Your task to perform on an android device: open app "Indeed Job Search" (install if not already installed) and enter user name: "quixotic@inbox.com" and password: "microphones" Image 0: 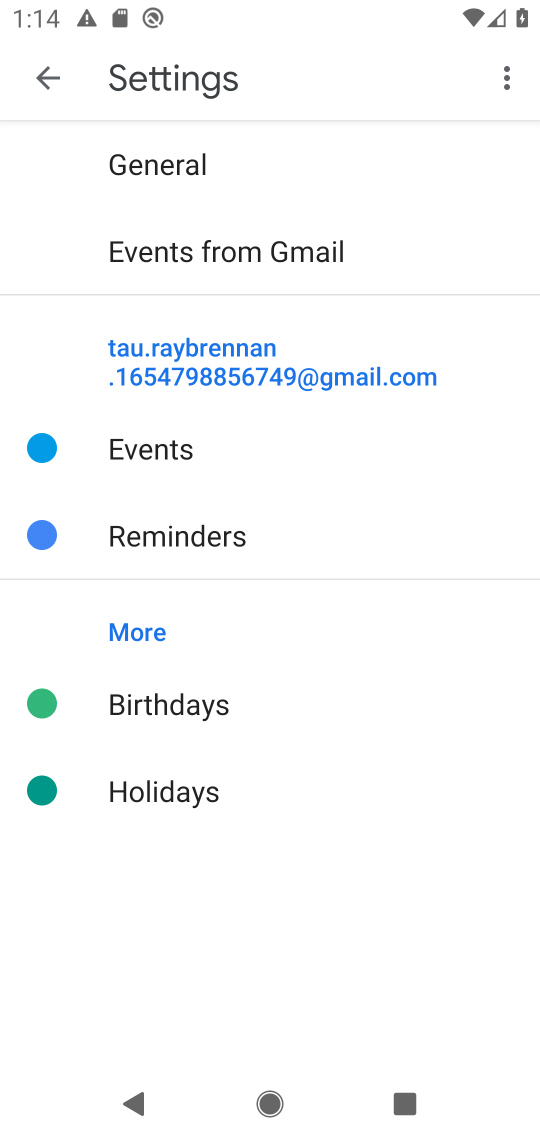
Step 0: press back button
Your task to perform on an android device: open app "Indeed Job Search" (install if not already installed) and enter user name: "quixotic@inbox.com" and password: "microphones" Image 1: 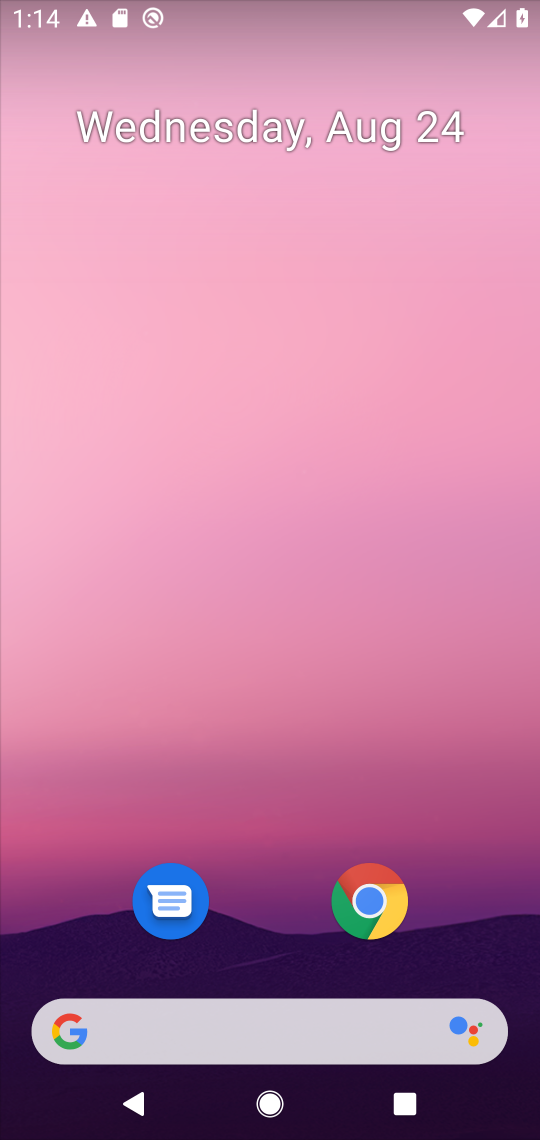
Step 1: drag from (268, 745) to (334, 259)
Your task to perform on an android device: open app "Indeed Job Search" (install if not already installed) and enter user name: "quixotic@inbox.com" and password: "microphones" Image 2: 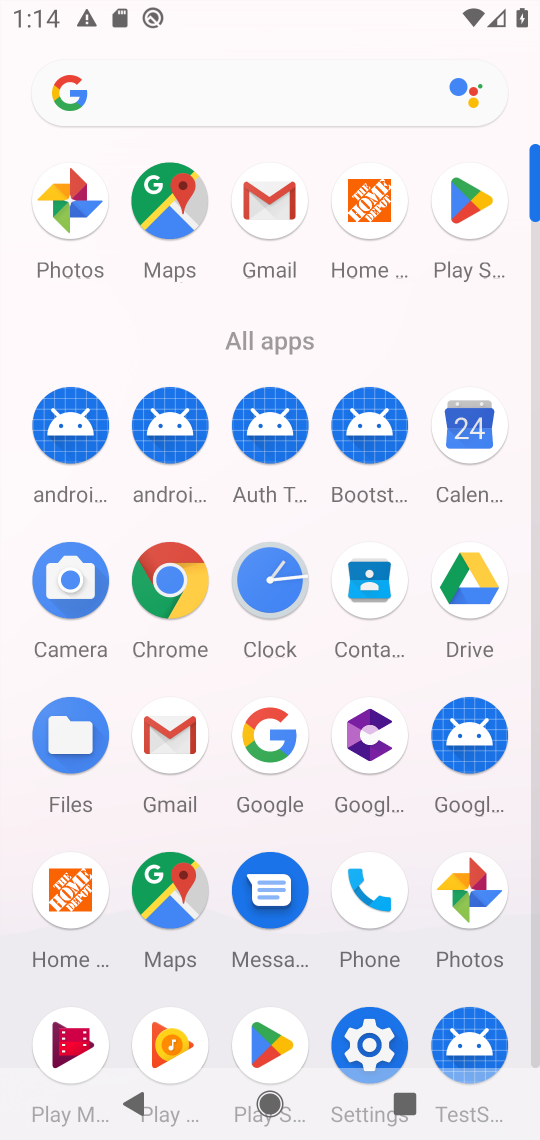
Step 2: click (467, 206)
Your task to perform on an android device: open app "Indeed Job Search" (install if not already installed) and enter user name: "quixotic@inbox.com" and password: "microphones" Image 3: 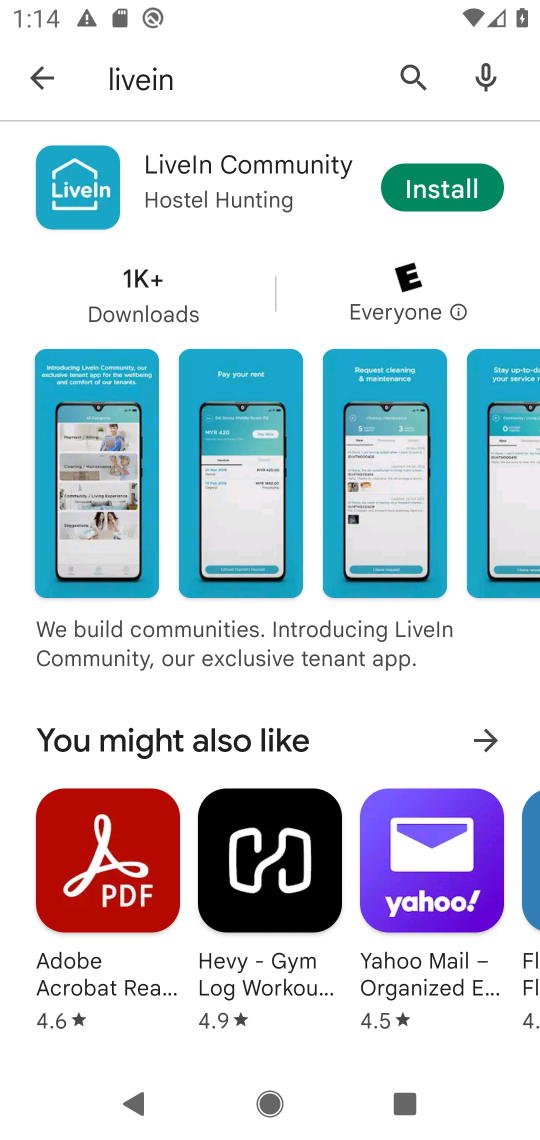
Step 3: click (400, 60)
Your task to perform on an android device: open app "Indeed Job Search" (install if not already installed) and enter user name: "quixotic@inbox.com" and password: "microphones" Image 4: 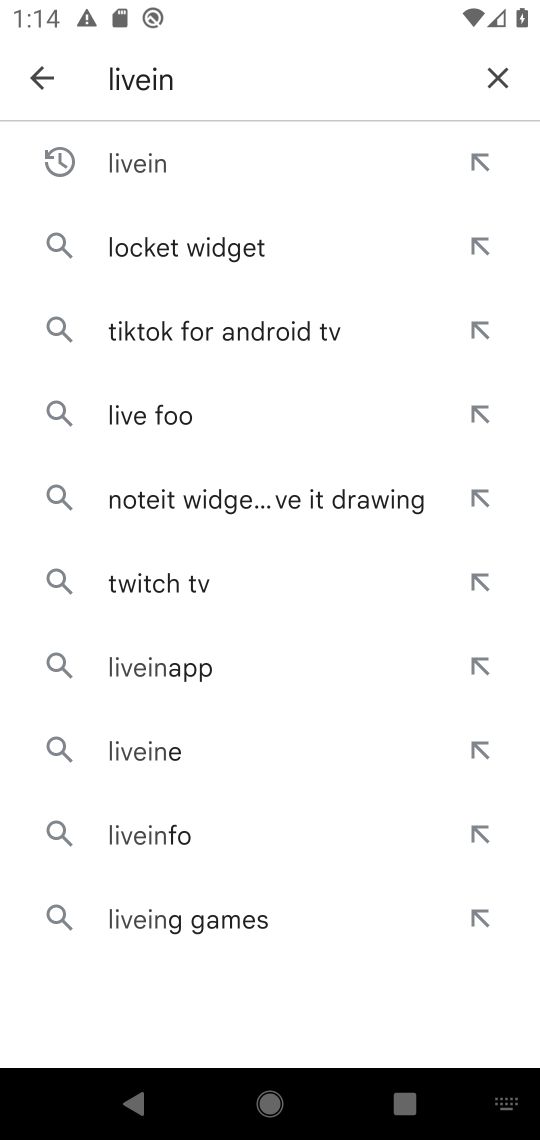
Step 4: click (511, 75)
Your task to perform on an android device: open app "Indeed Job Search" (install if not already installed) and enter user name: "quixotic@inbox.com" and password: "microphones" Image 5: 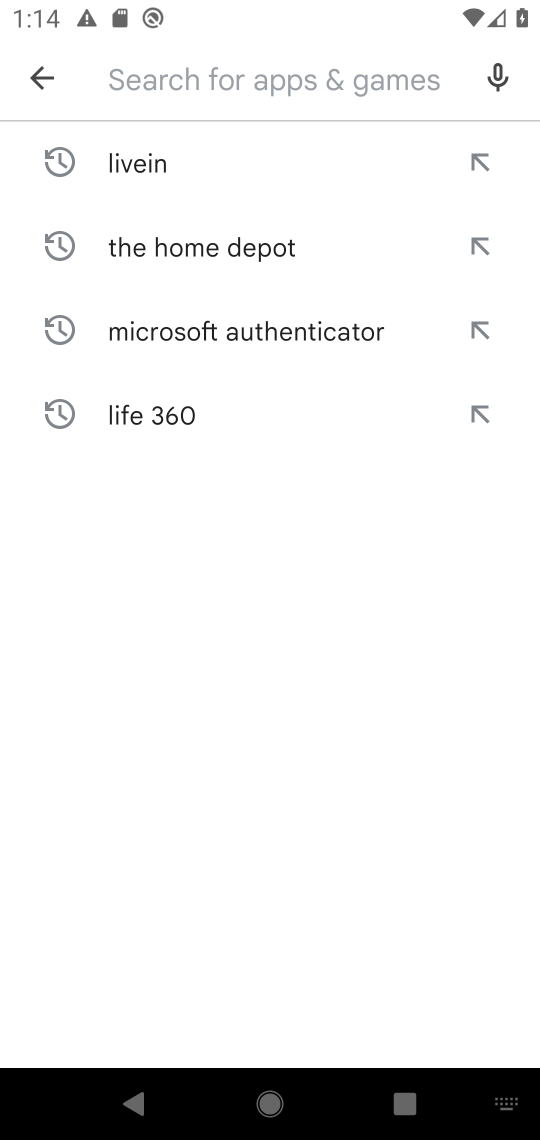
Step 5: click (130, 77)
Your task to perform on an android device: open app "Indeed Job Search" (install if not already installed) and enter user name: "quixotic@inbox.com" and password: "microphones" Image 6: 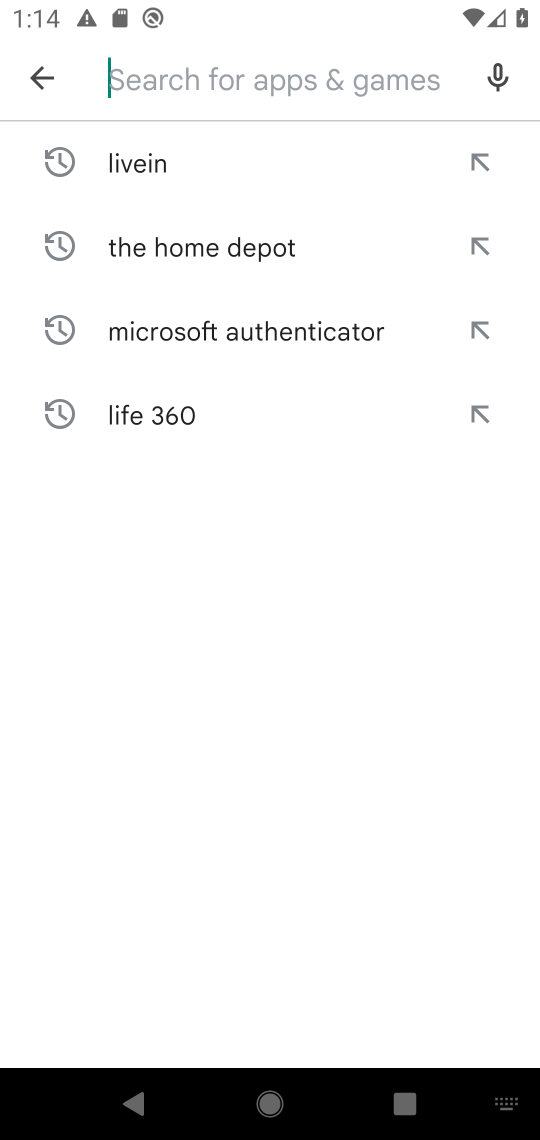
Step 6: type "Indeed Job Search"
Your task to perform on an android device: open app "Indeed Job Search" (install if not already installed) and enter user name: "quixotic@inbox.com" and password: "microphones" Image 7: 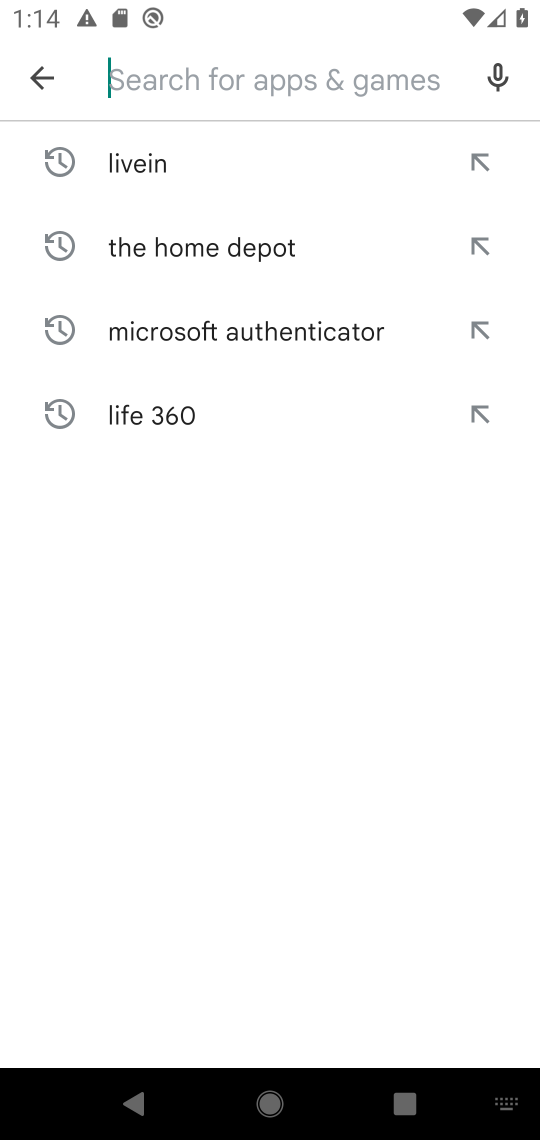
Step 7: click (328, 759)
Your task to perform on an android device: open app "Indeed Job Search" (install if not already installed) and enter user name: "quixotic@inbox.com" and password: "microphones" Image 8: 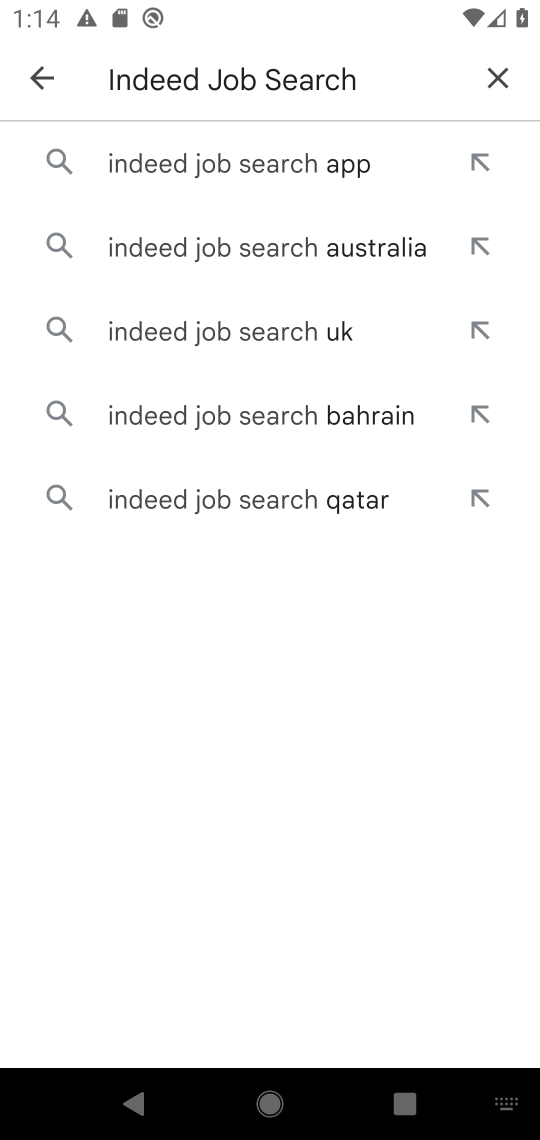
Step 8: click (255, 173)
Your task to perform on an android device: open app "Indeed Job Search" (install if not already installed) and enter user name: "quixotic@inbox.com" and password: "microphones" Image 9: 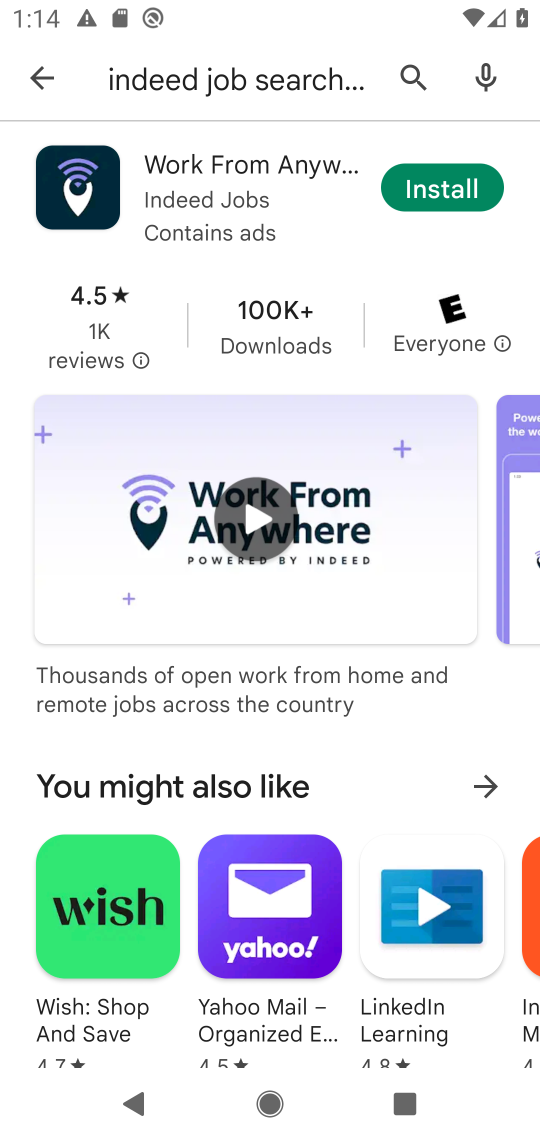
Step 9: click (423, 83)
Your task to perform on an android device: open app "Indeed Job Search" (install if not already installed) and enter user name: "quixotic@inbox.com" and password: "microphones" Image 10: 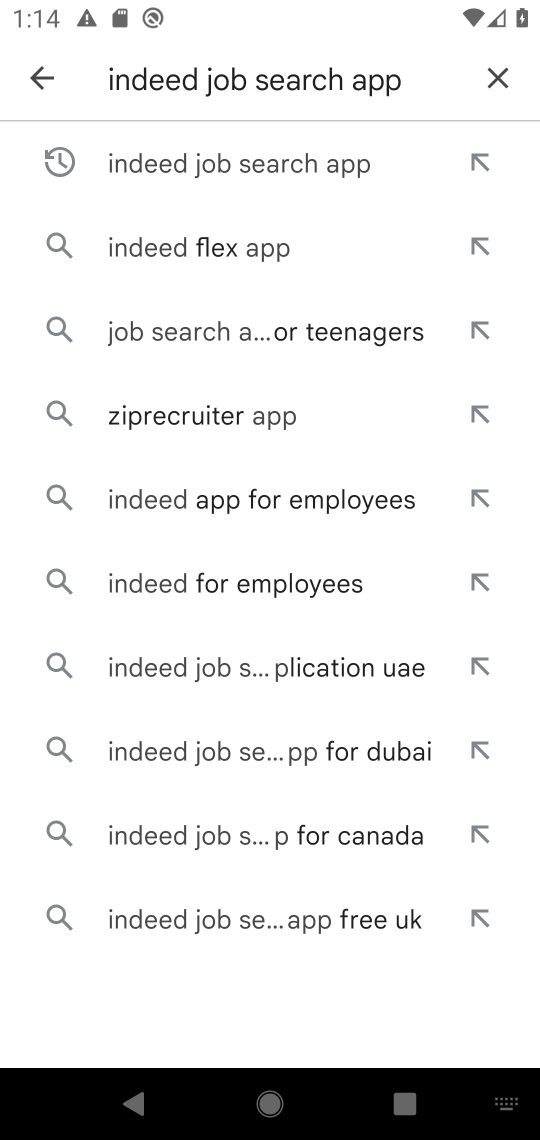
Step 10: click (167, 150)
Your task to perform on an android device: open app "Indeed Job Search" (install if not already installed) and enter user name: "quixotic@inbox.com" and password: "microphones" Image 11: 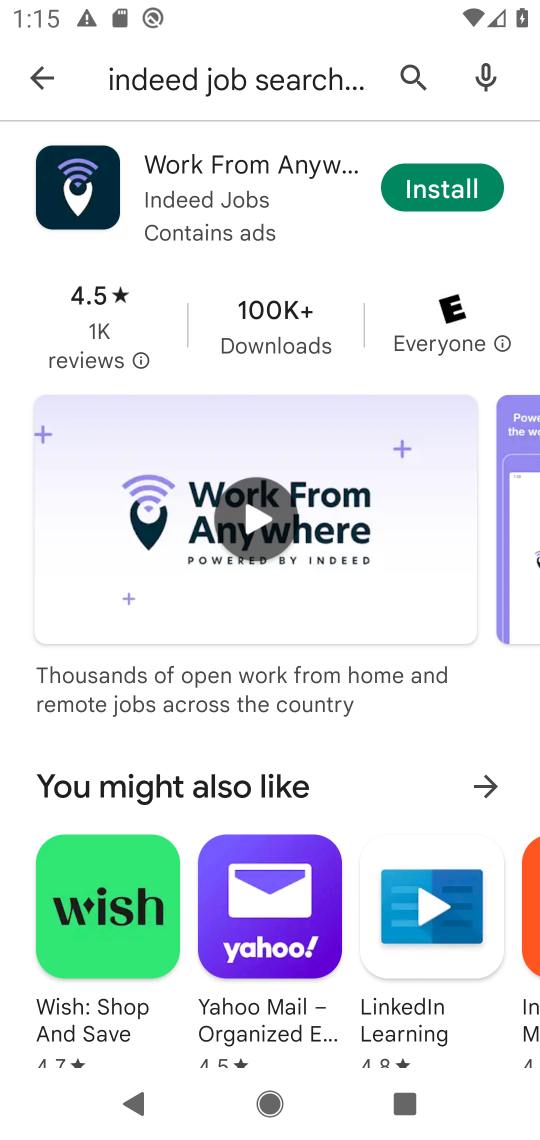
Step 11: task complete